Your task to perform on an android device: Search for pizza restaurants on Maps Image 0: 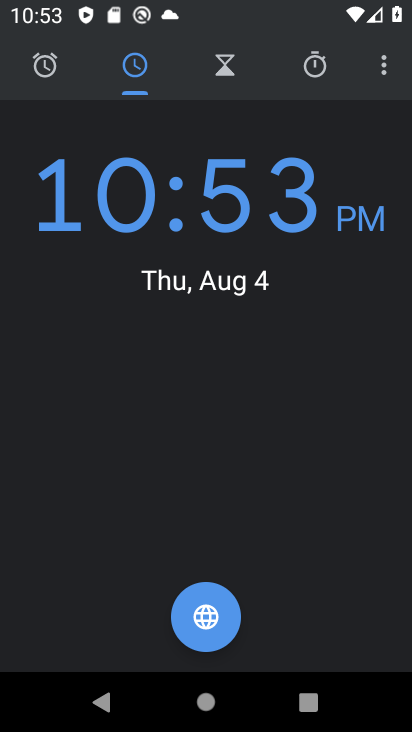
Step 0: press home button
Your task to perform on an android device: Search for pizza restaurants on Maps Image 1: 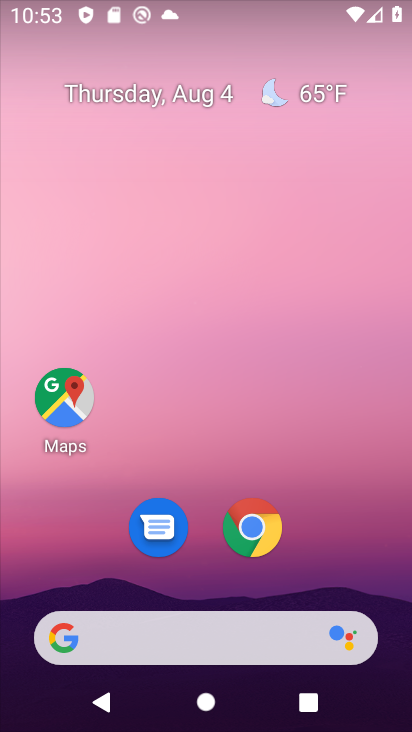
Step 1: click (64, 373)
Your task to perform on an android device: Search for pizza restaurants on Maps Image 2: 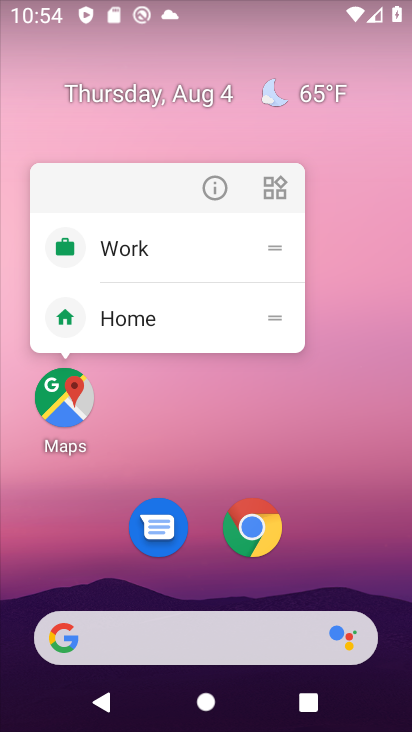
Step 2: click (74, 413)
Your task to perform on an android device: Search for pizza restaurants on Maps Image 3: 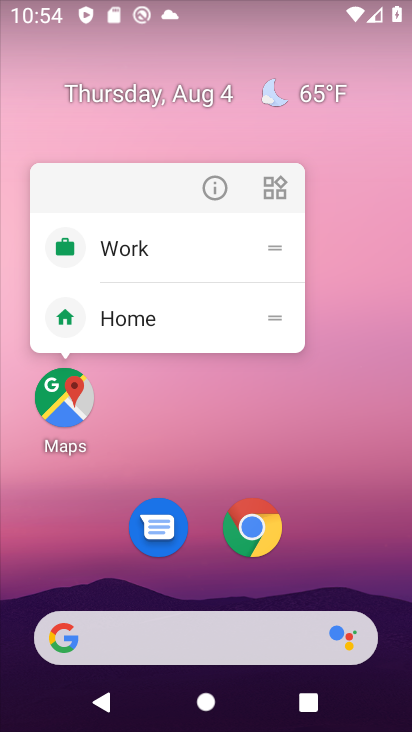
Step 3: click (74, 413)
Your task to perform on an android device: Search for pizza restaurants on Maps Image 4: 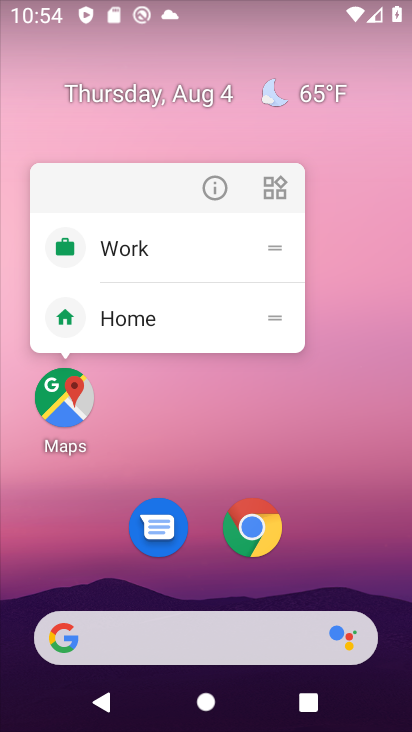
Step 4: click (74, 413)
Your task to perform on an android device: Search for pizza restaurants on Maps Image 5: 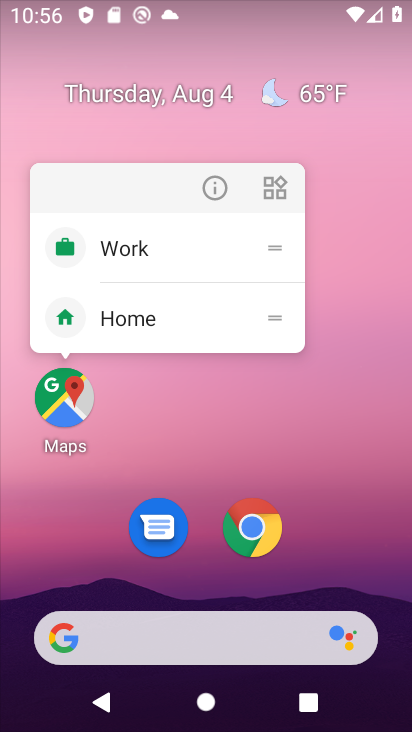
Step 5: click (75, 390)
Your task to perform on an android device: Search for pizza restaurants on Maps Image 6: 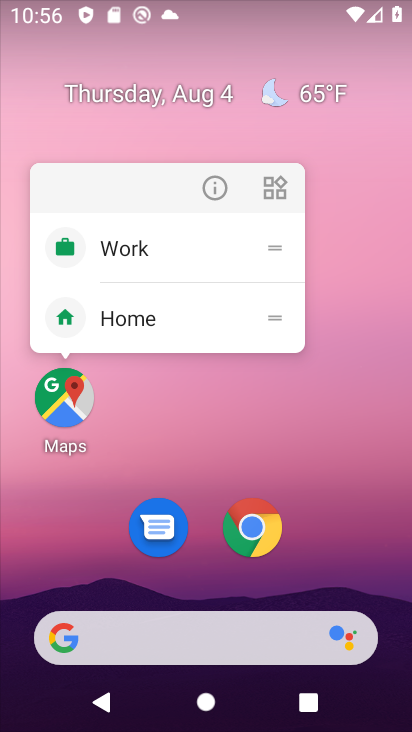
Step 6: click (75, 393)
Your task to perform on an android device: Search for pizza restaurants on Maps Image 7: 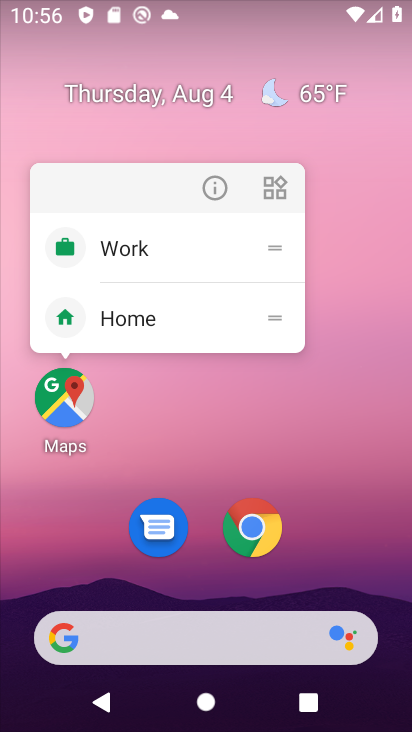
Step 7: click (56, 422)
Your task to perform on an android device: Search for pizza restaurants on Maps Image 8: 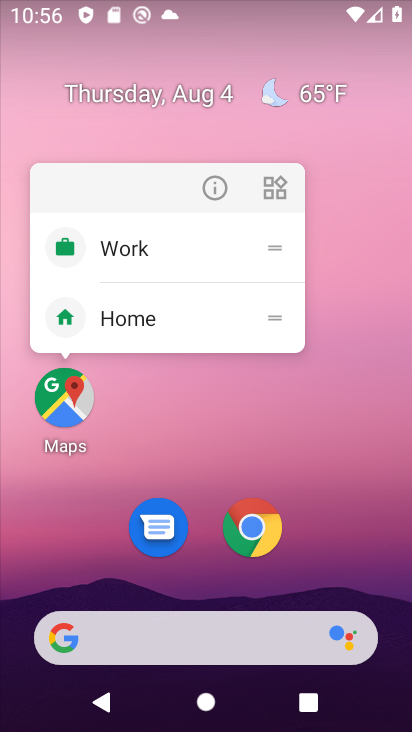
Step 8: click (56, 422)
Your task to perform on an android device: Search for pizza restaurants on Maps Image 9: 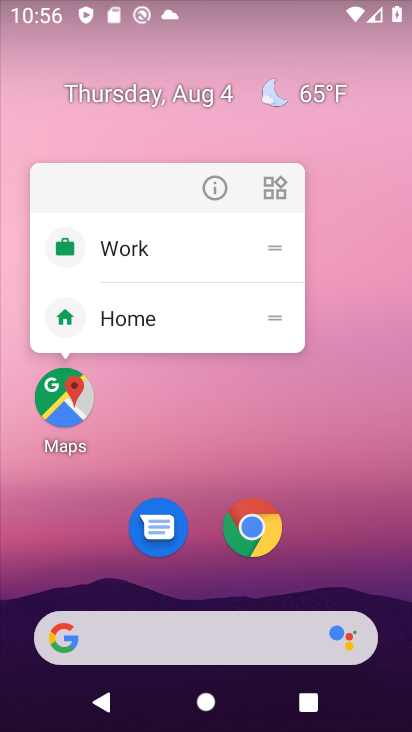
Step 9: click (64, 396)
Your task to perform on an android device: Search for pizza restaurants on Maps Image 10: 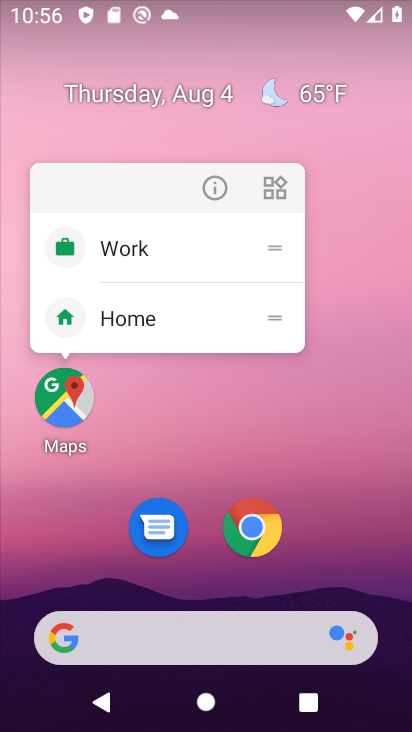
Step 10: click (53, 425)
Your task to perform on an android device: Search for pizza restaurants on Maps Image 11: 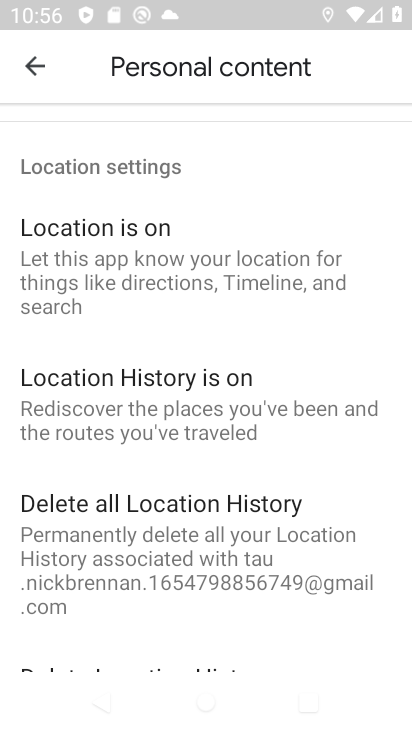
Step 11: click (31, 55)
Your task to perform on an android device: Search for pizza restaurants on Maps Image 12: 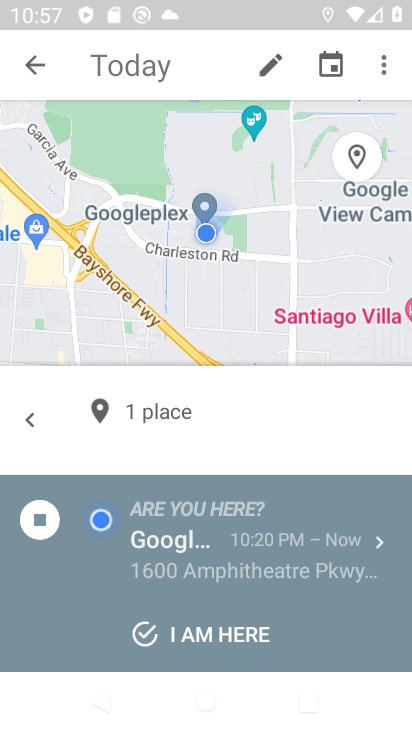
Step 12: click (35, 62)
Your task to perform on an android device: Search for pizza restaurants on Maps Image 13: 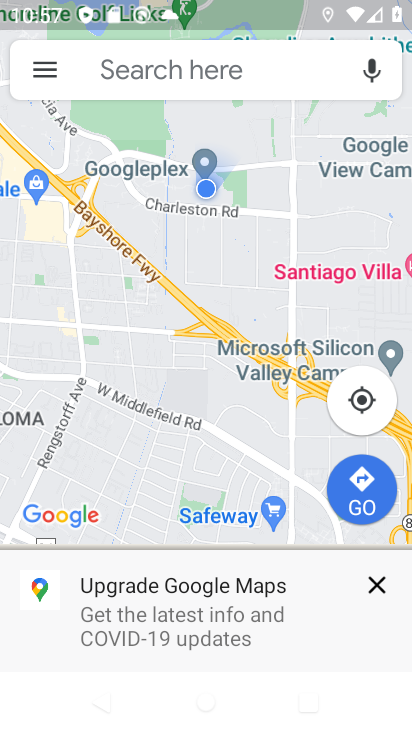
Step 13: click (186, 78)
Your task to perform on an android device: Search for pizza restaurants on Maps Image 14: 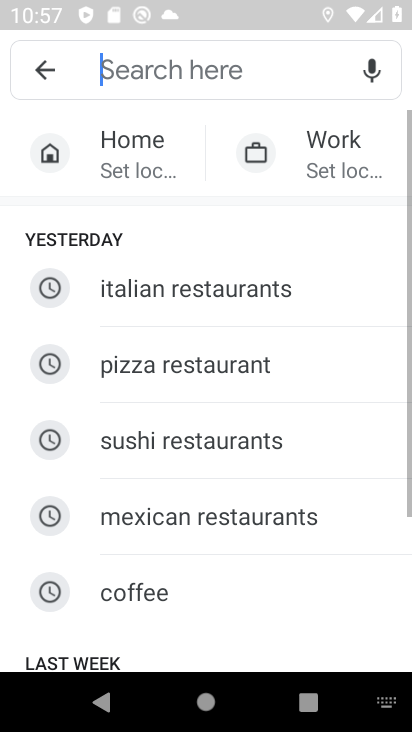
Step 14: click (174, 368)
Your task to perform on an android device: Search for pizza restaurants on Maps Image 15: 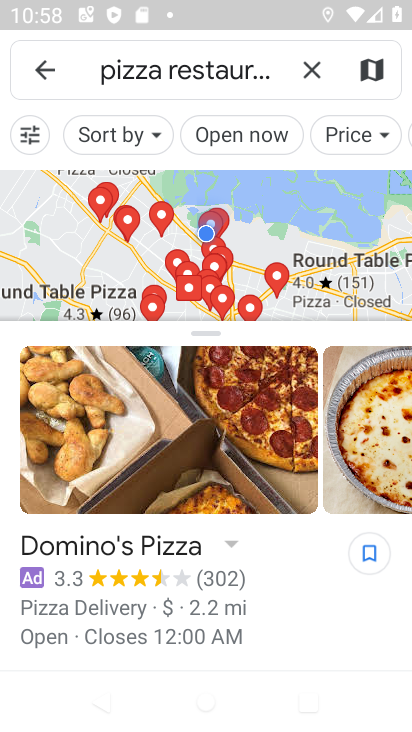
Step 15: task complete